Your task to perform on an android device: open a new tab in the chrome app Image 0: 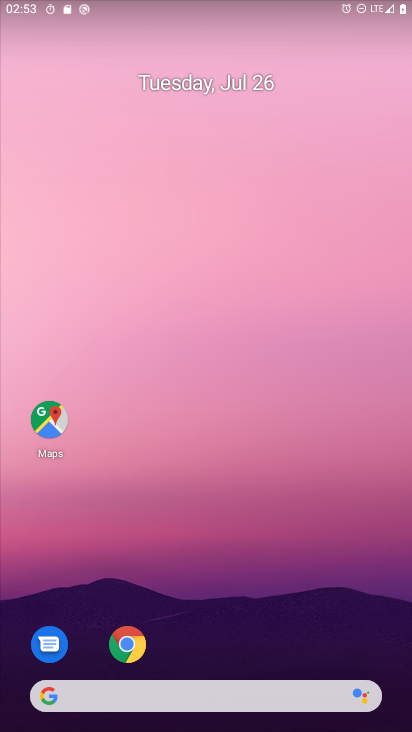
Step 0: click (130, 645)
Your task to perform on an android device: open a new tab in the chrome app Image 1: 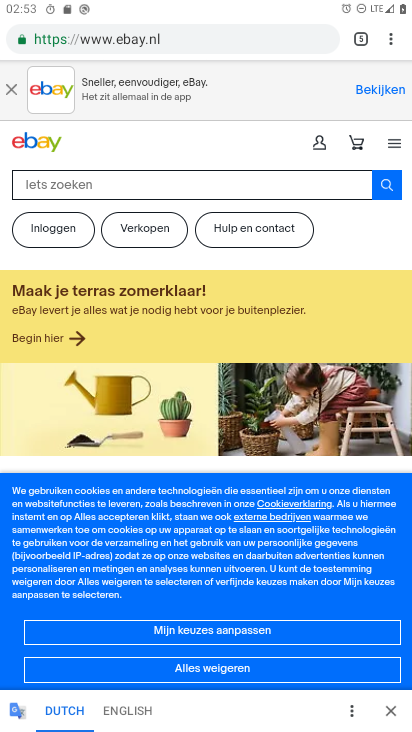
Step 1: click (394, 42)
Your task to perform on an android device: open a new tab in the chrome app Image 2: 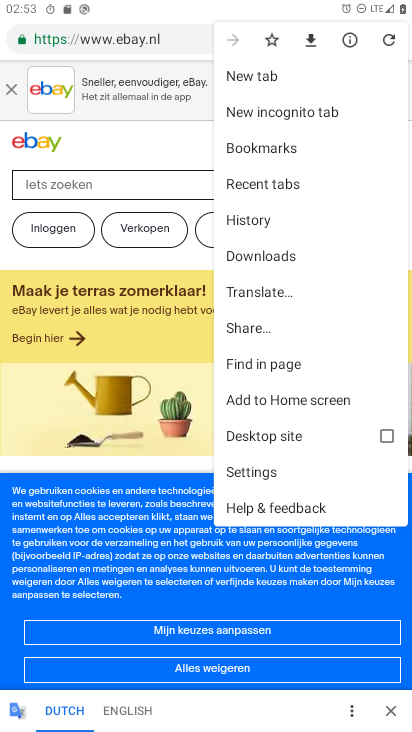
Step 2: click (268, 74)
Your task to perform on an android device: open a new tab in the chrome app Image 3: 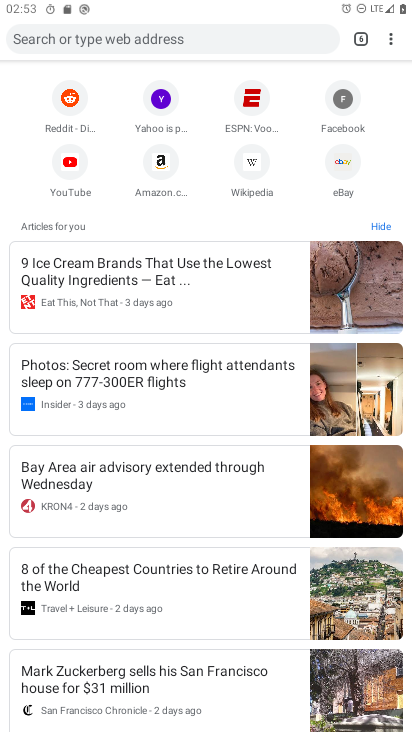
Step 3: task complete